Your task to perform on an android device: open app "Reddit" Image 0: 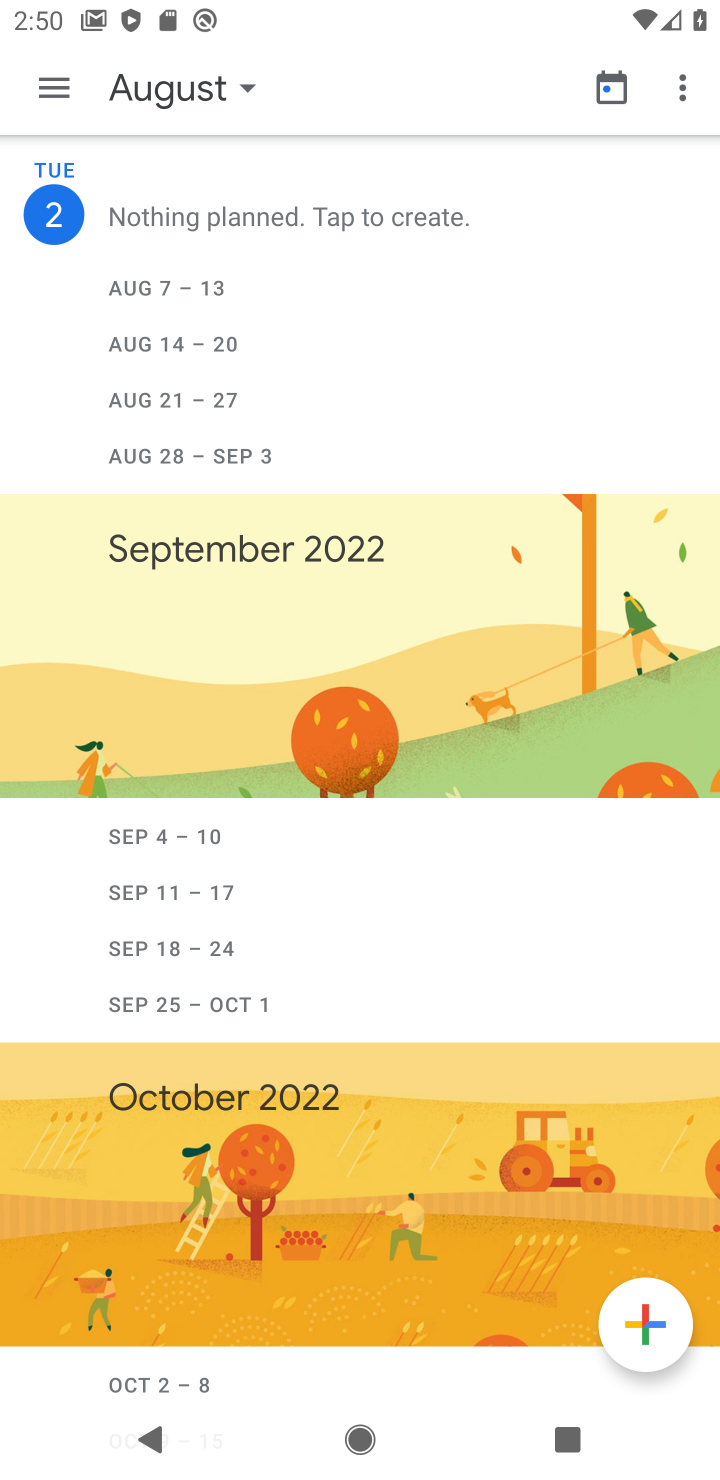
Step 0: press home button
Your task to perform on an android device: open app "Reddit" Image 1: 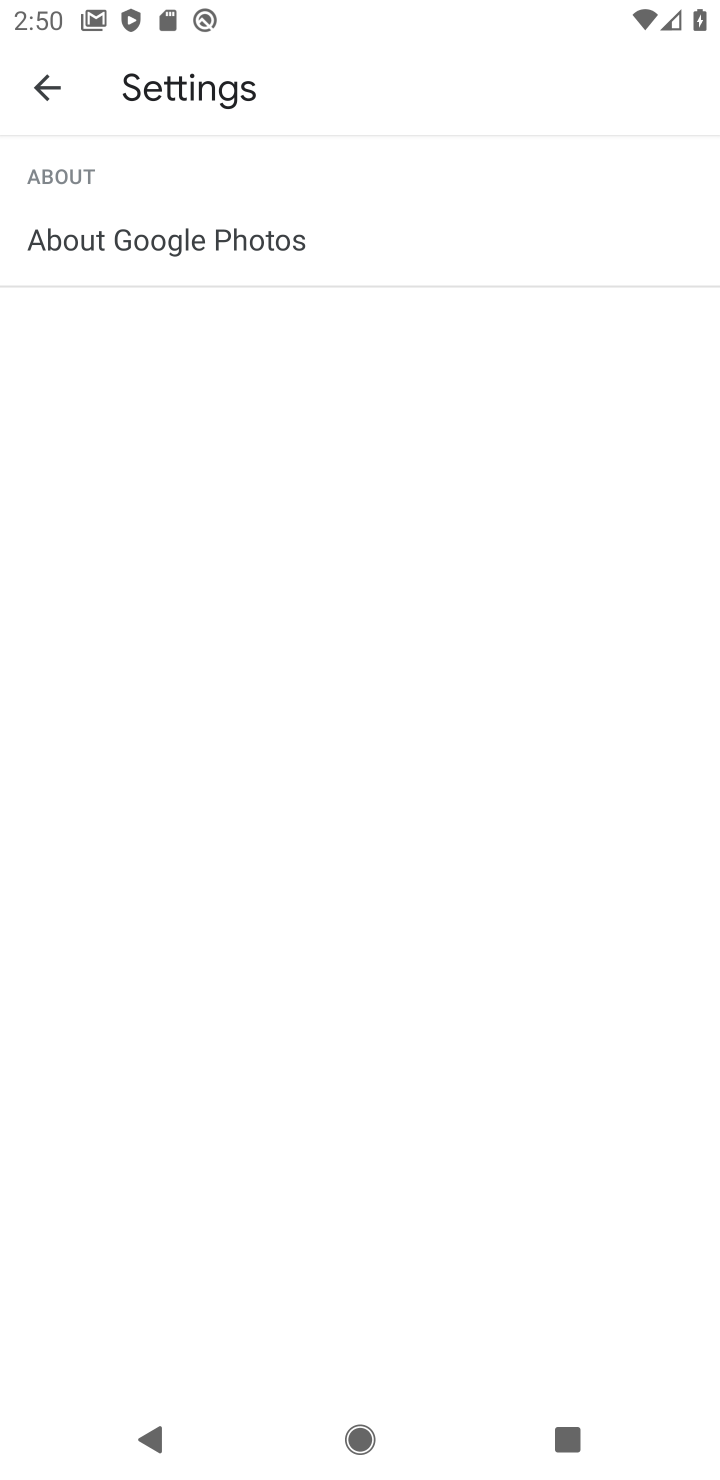
Step 1: press home button
Your task to perform on an android device: open app "Reddit" Image 2: 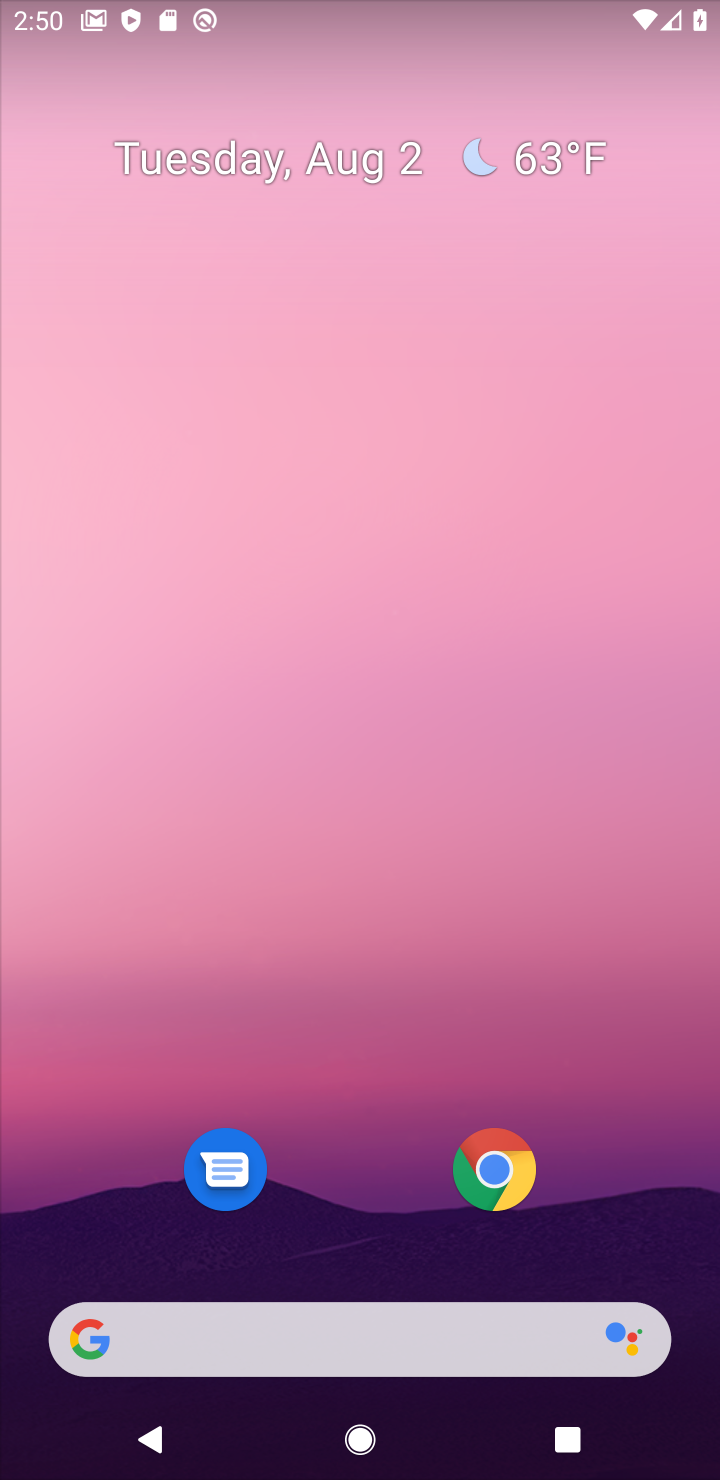
Step 2: drag from (385, 857) to (462, 85)
Your task to perform on an android device: open app "Reddit" Image 3: 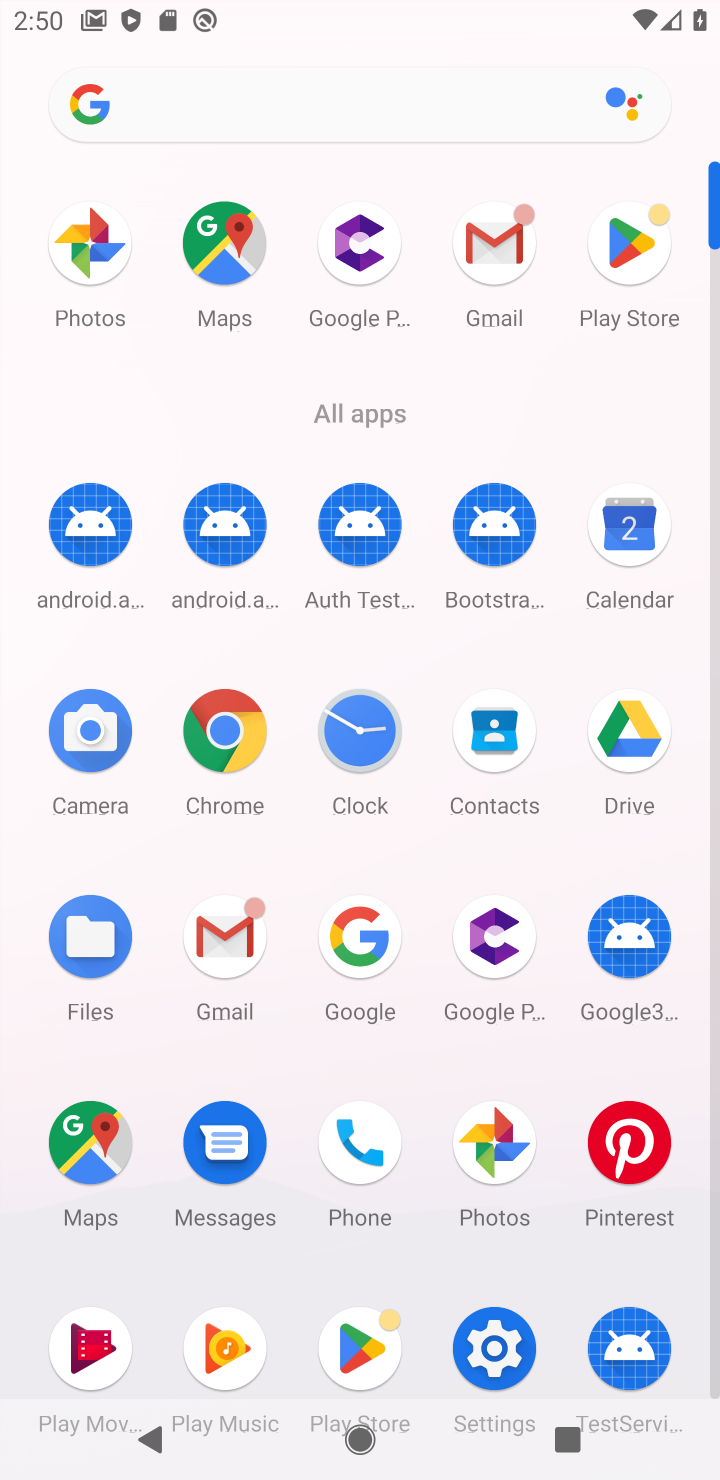
Step 3: click (609, 302)
Your task to perform on an android device: open app "Reddit" Image 4: 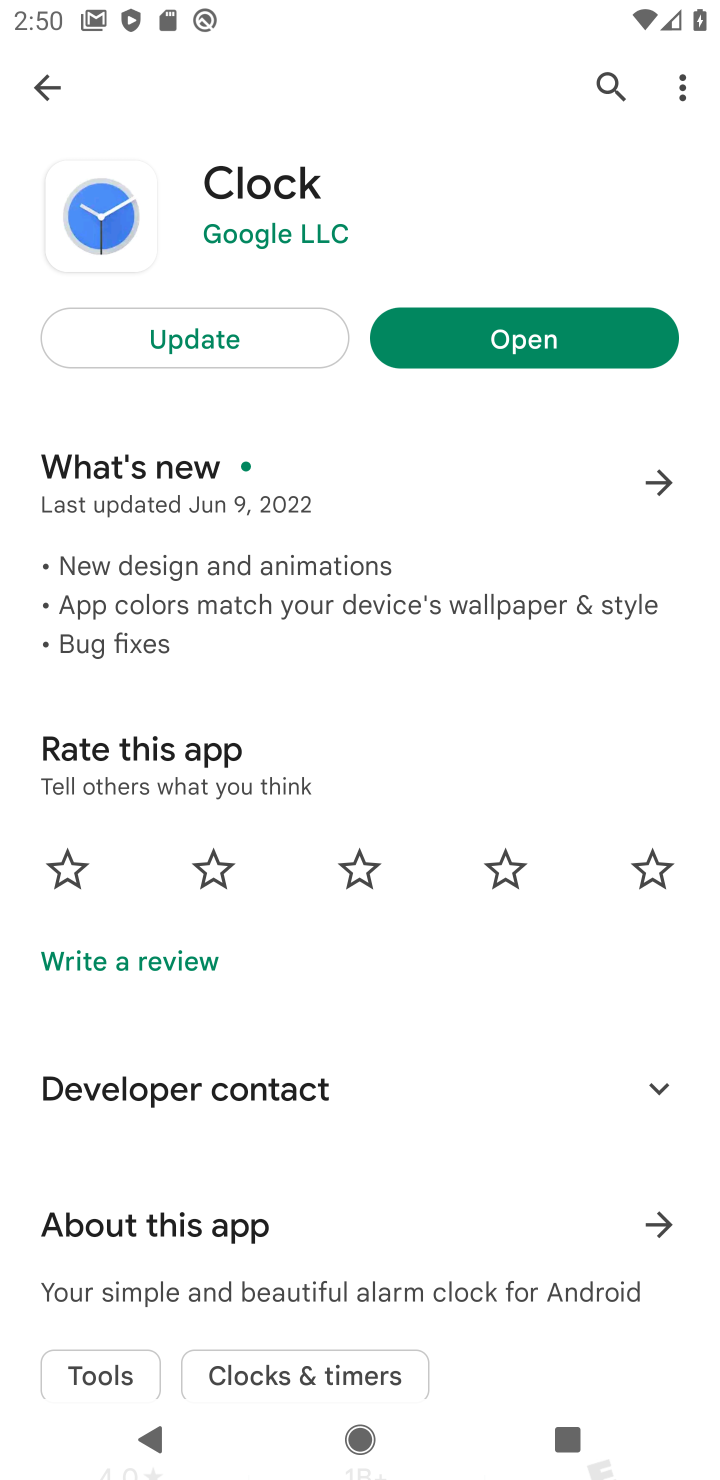
Step 4: click (44, 85)
Your task to perform on an android device: open app "Reddit" Image 5: 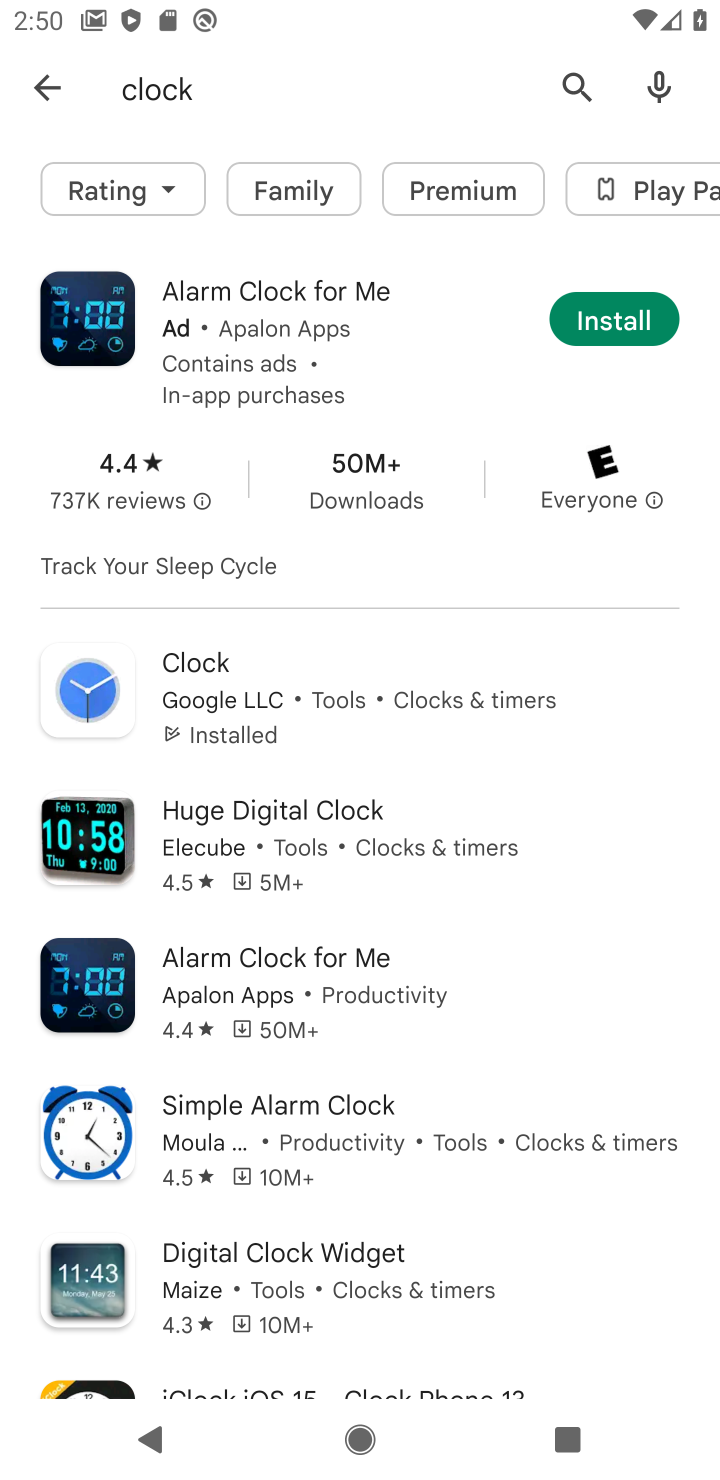
Step 5: click (58, 85)
Your task to perform on an android device: open app "Reddit" Image 6: 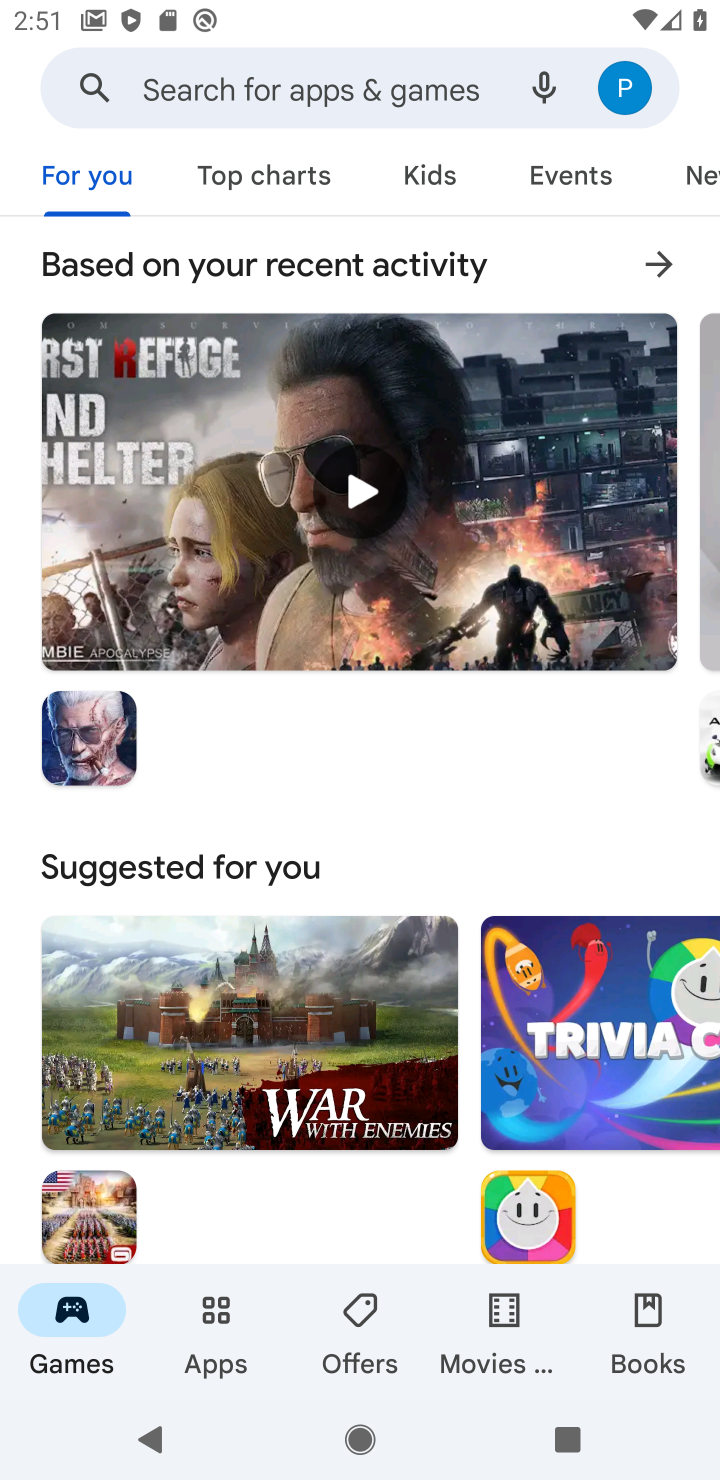
Step 6: click (229, 85)
Your task to perform on an android device: open app "Reddit" Image 7: 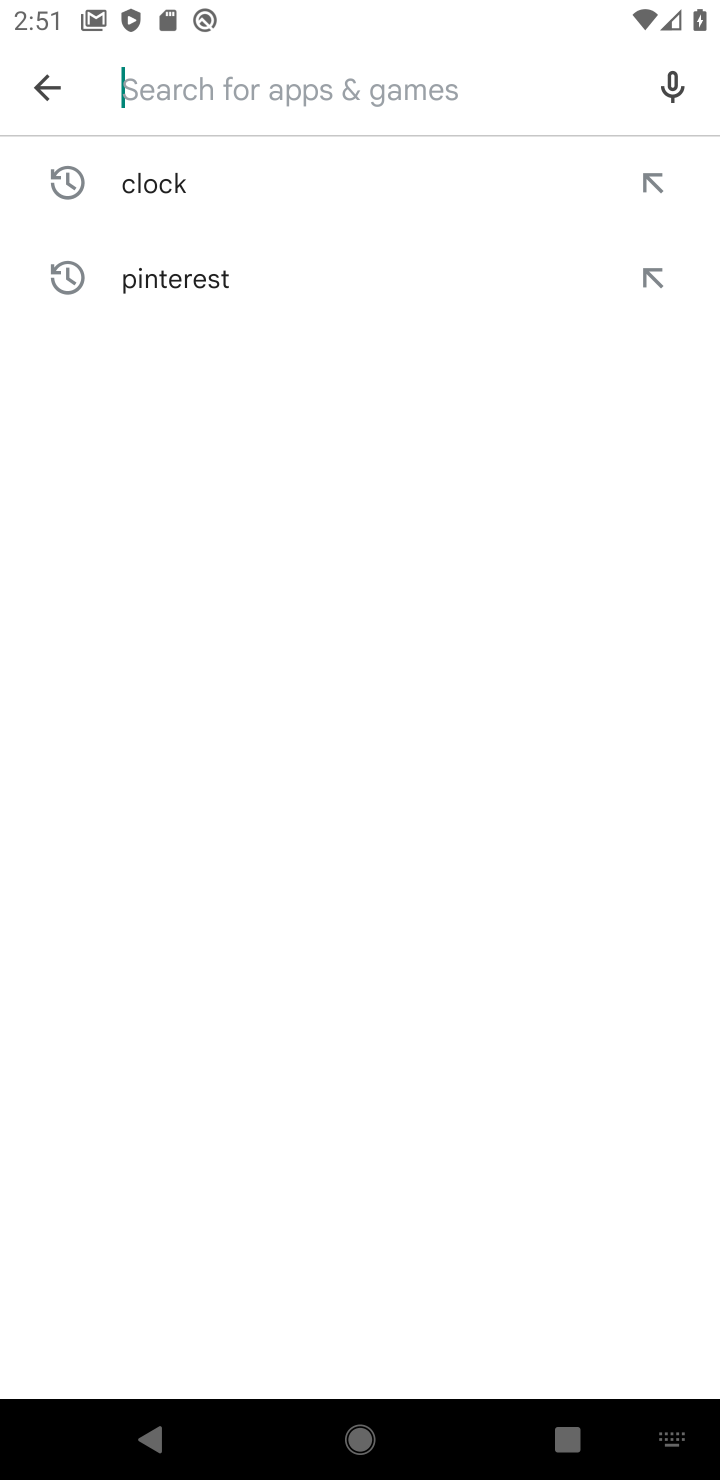
Step 7: type "Reddit"
Your task to perform on an android device: open app "Reddit" Image 8: 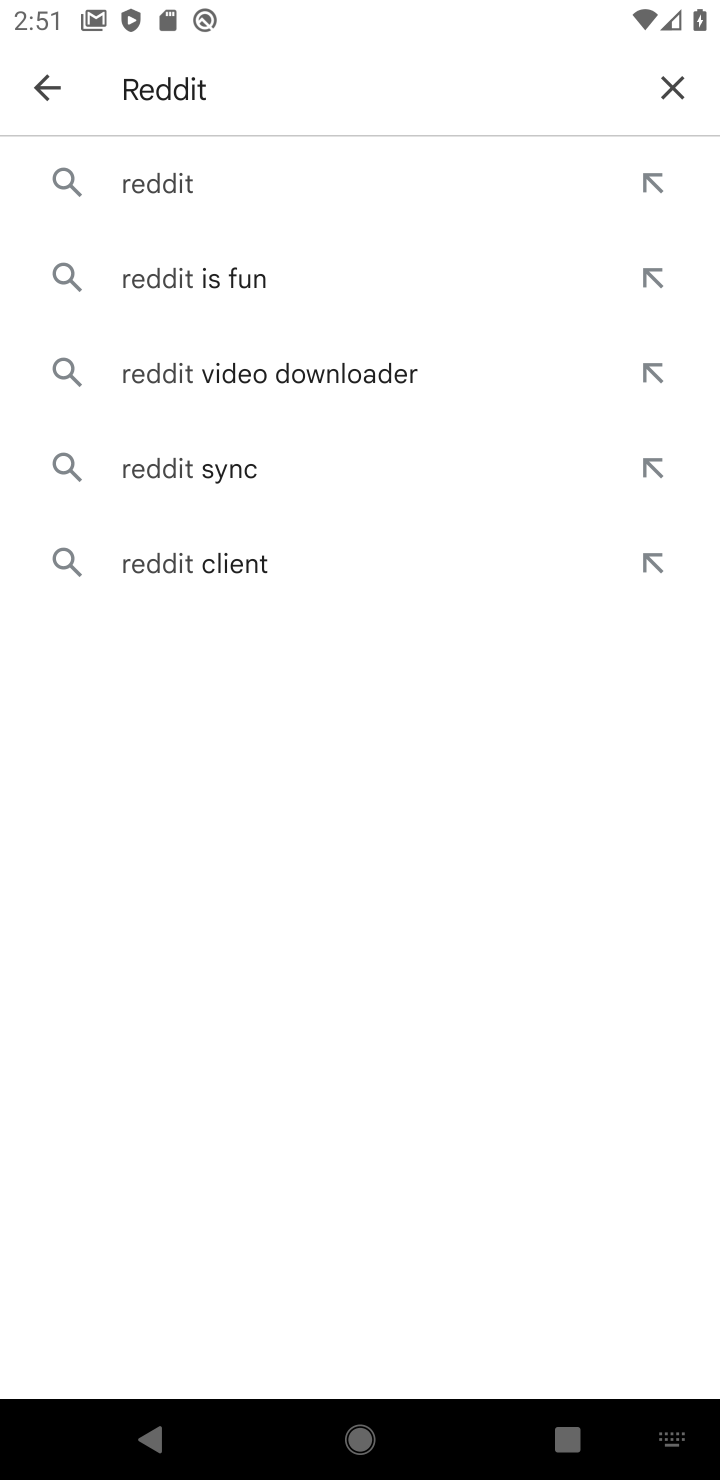
Step 8: click (177, 171)
Your task to perform on an android device: open app "Reddit" Image 9: 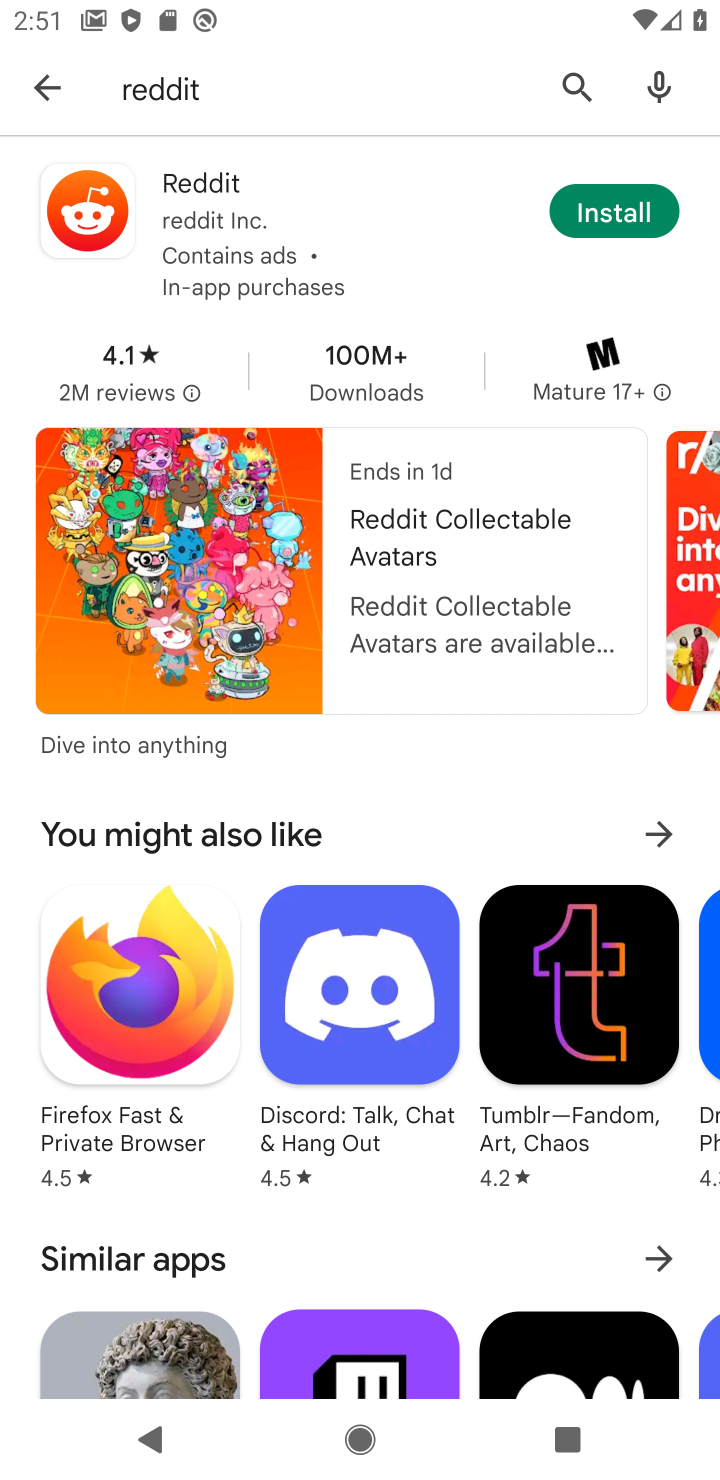
Step 9: click (612, 201)
Your task to perform on an android device: open app "Reddit" Image 10: 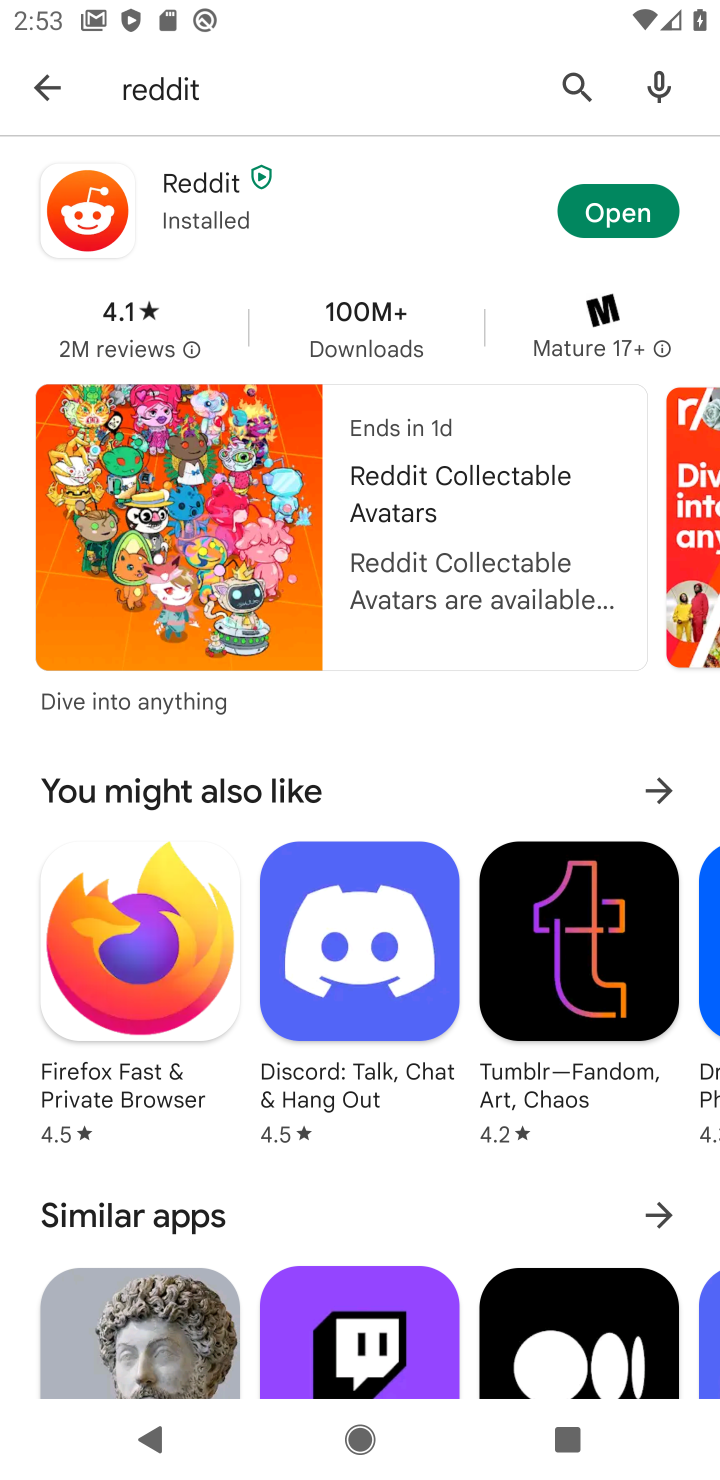
Step 10: click (611, 236)
Your task to perform on an android device: open app "Reddit" Image 11: 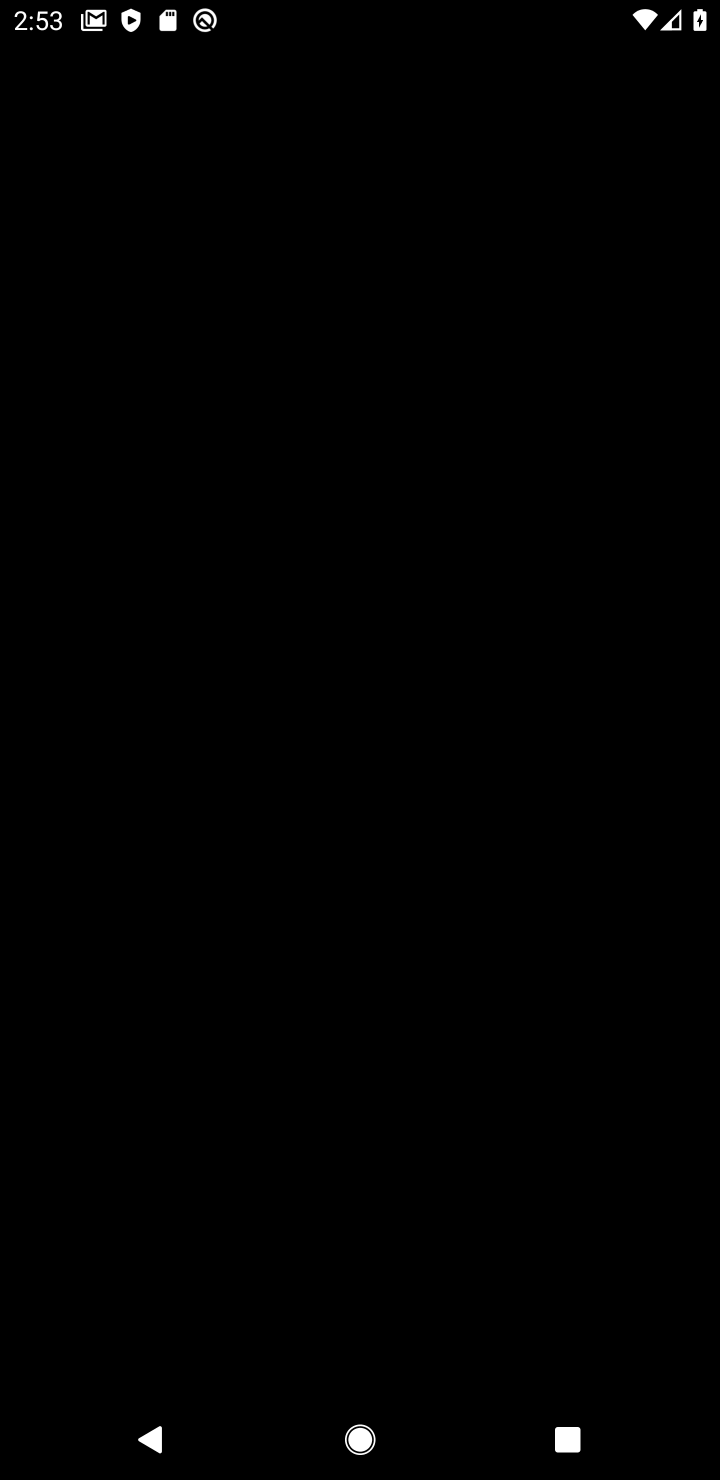
Step 11: task complete